Your task to perform on an android device: Go to privacy settings Image 0: 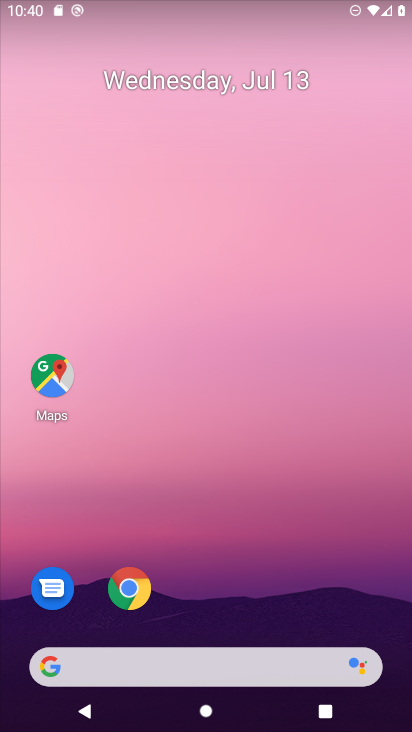
Step 0: drag from (245, 629) to (248, 200)
Your task to perform on an android device: Go to privacy settings Image 1: 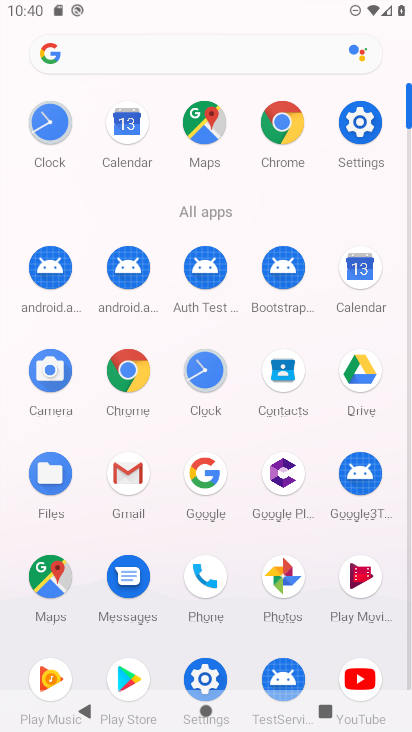
Step 1: click (212, 662)
Your task to perform on an android device: Go to privacy settings Image 2: 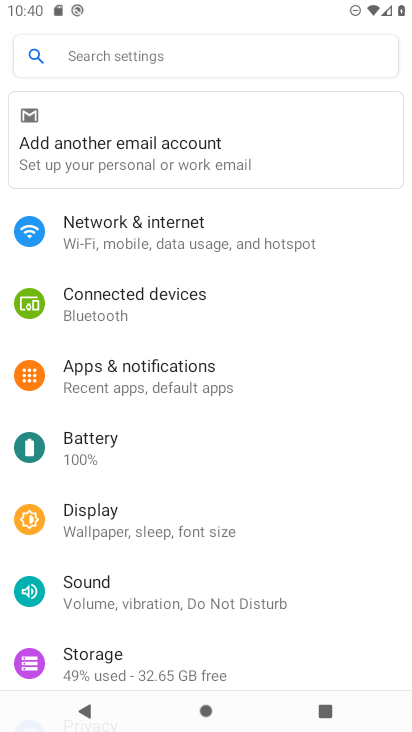
Step 2: drag from (138, 613) to (152, 398)
Your task to perform on an android device: Go to privacy settings Image 3: 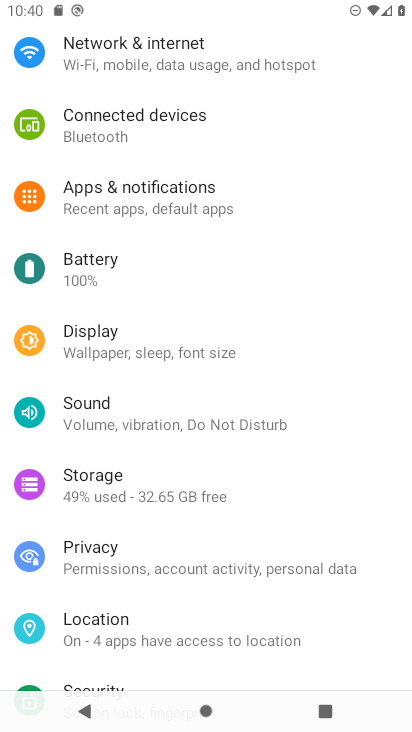
Step 3: click (116, 555)
Your task to perform on an android device: Go to privacy settings Image 4: 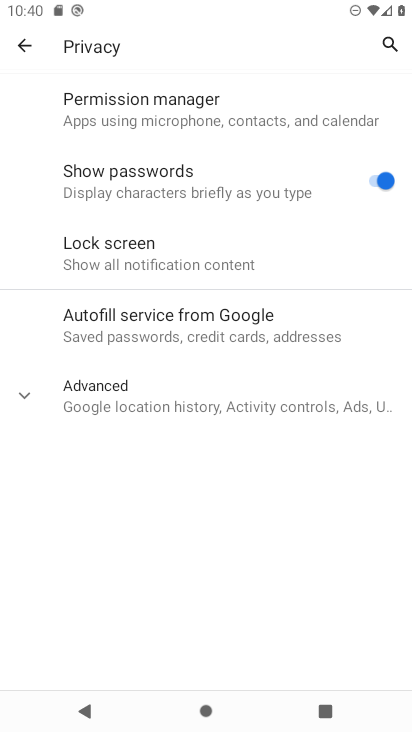
Step 4: task complete